Your task to perform on an android device: turn notification dots on Image 0: 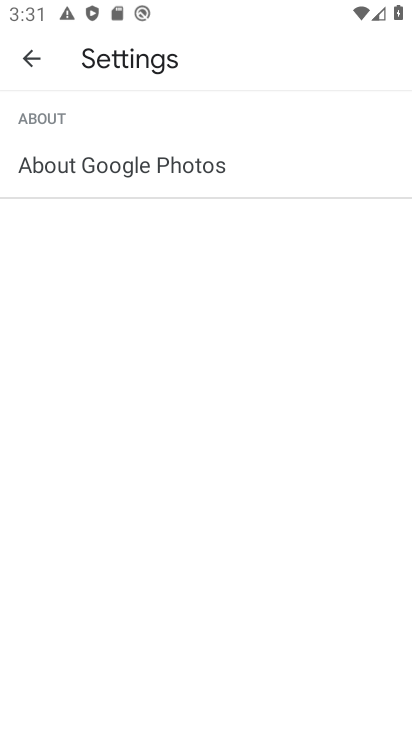
Step 0: press home button
Your task to perform on an android device: turn notification dots on Image 1: 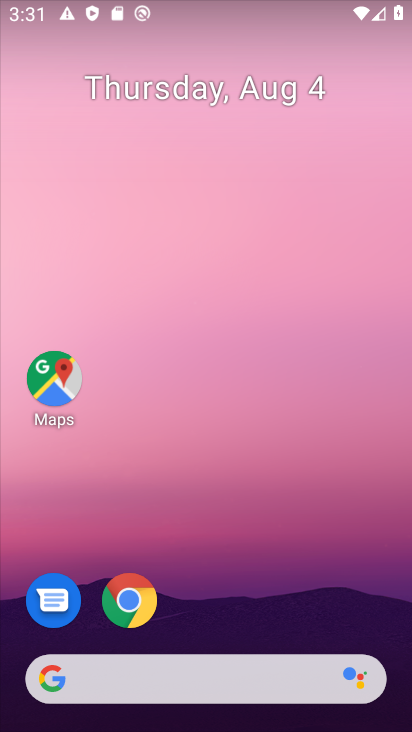
Step 1: drag from (274, 554) to (253, 73)
Your task to perform on an android device: turn notification dots on Image 2: 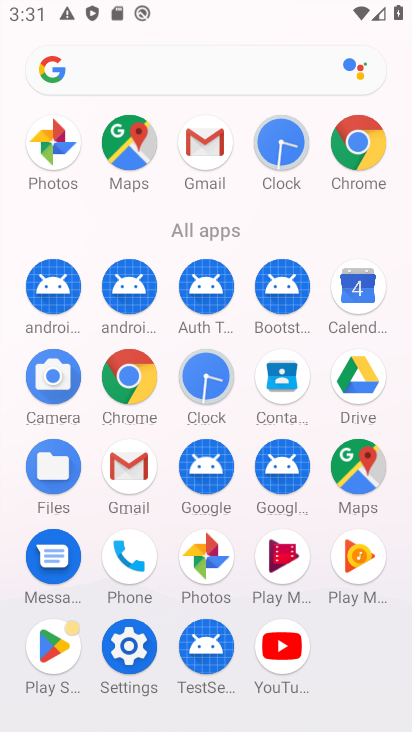
Step 2: drag from (247, 548) to (268, 237)
Your task to perform on an android device: turn notification dots on Image 3: 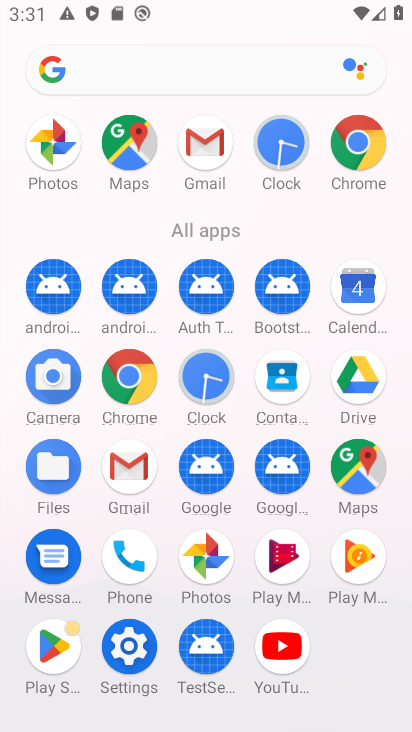
Step 3: click (135, 630)
Your task to perform on an android device: turn notification dots on Image 4: 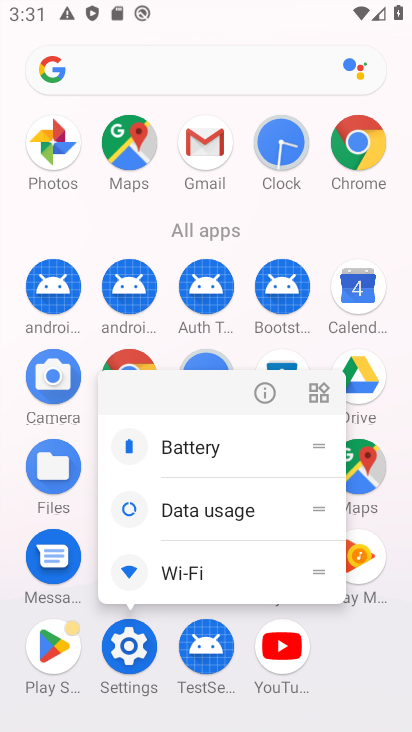
Step 4: click (130, 638)
Your task to perform on an android device: turn notification dots on Image 5: 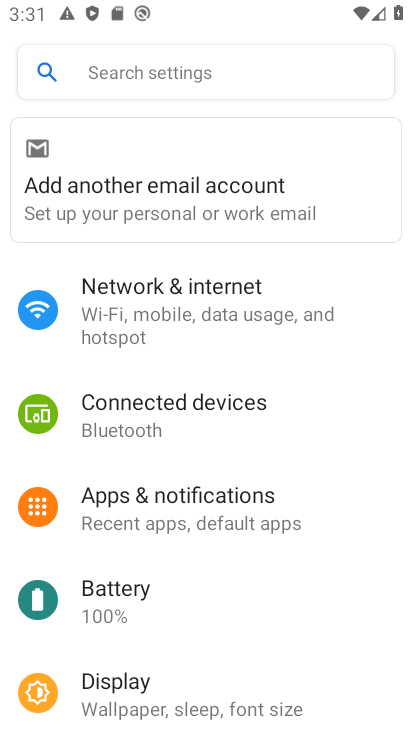
Step 5: click (184, 516)
Your task to perform on an android device: turn notification dots on Image 6: 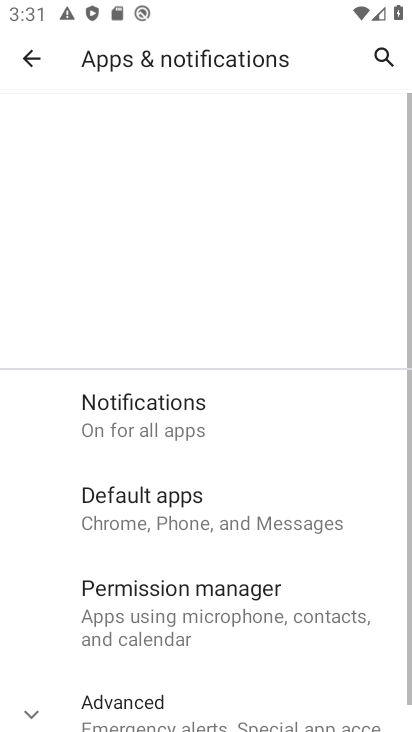
Step 6: click (171, 410)
Your task to perform on an android device: turn notification dots on Image 7: 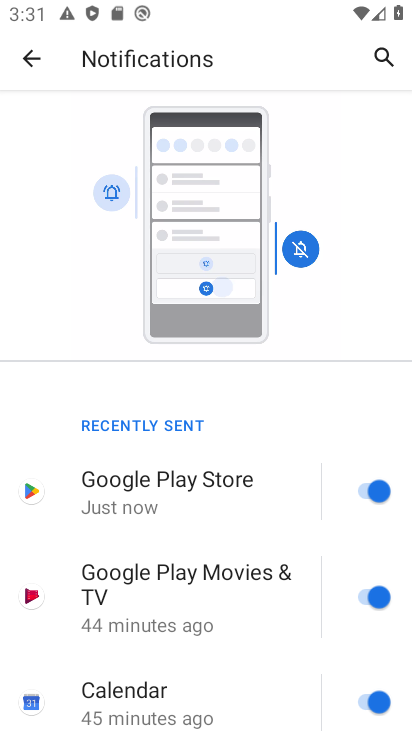
Step 7: drag from (262, 608) to (340, 150)
Your task to perform on an android device: turn notification dots on Image 8: 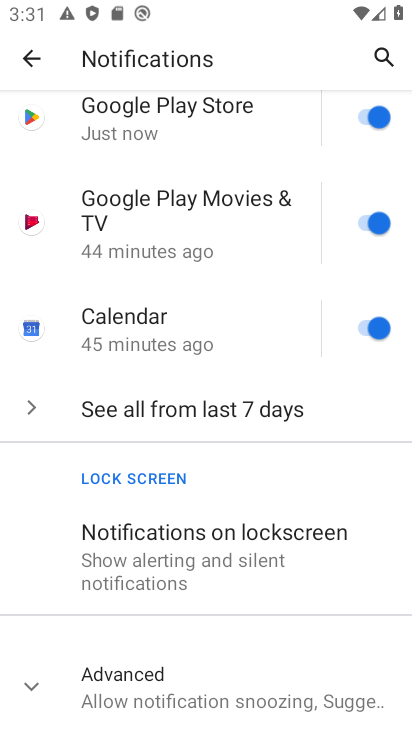
Step 8: drag from (174, 655) to (253, 259)
Your task to perform on an android device: turn notification dots on Image 9: 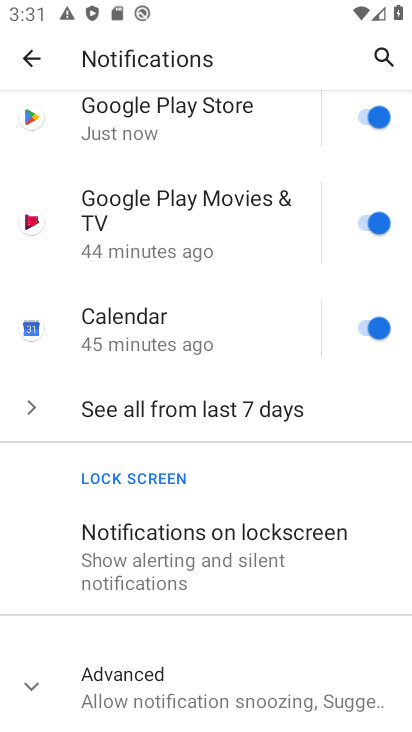
Step 9: click (171, 692)
Your task to perform on an android device: turn notification dots on Image 10: 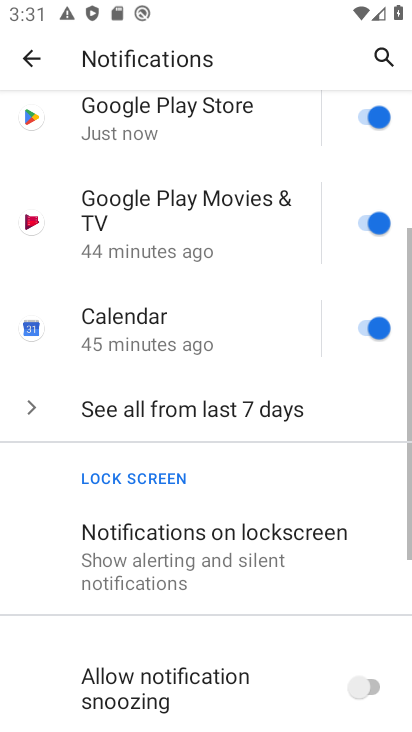
Step 10: task complete